Your task to perform on an android device: Open calendar and show me the fourth week of next month Image 0: 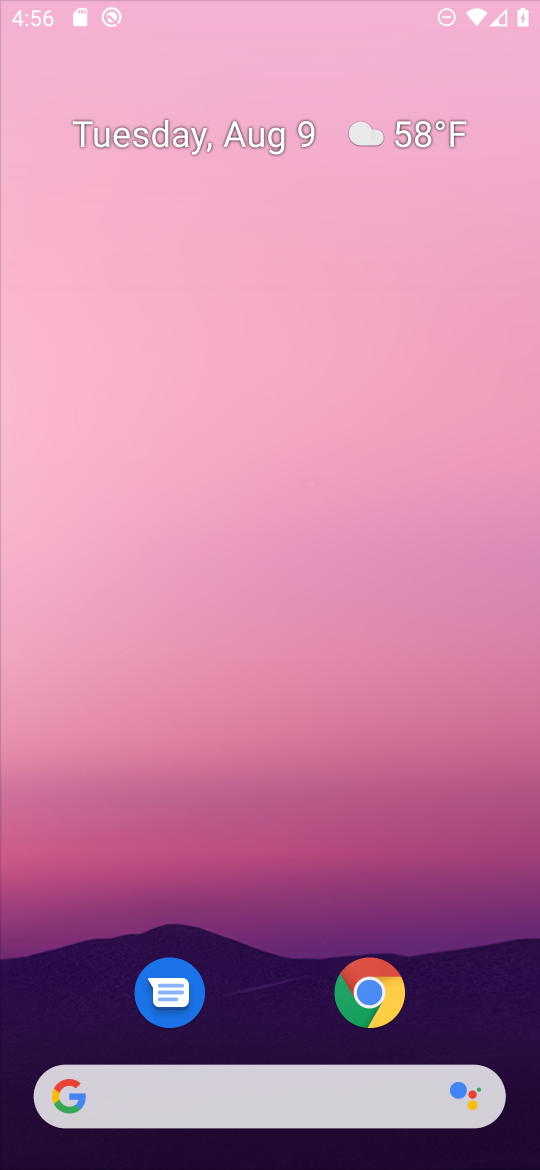
Step 0: press home button
Your task to perform on an android device: Open calendar and show me the fourth week of next month Image 1: 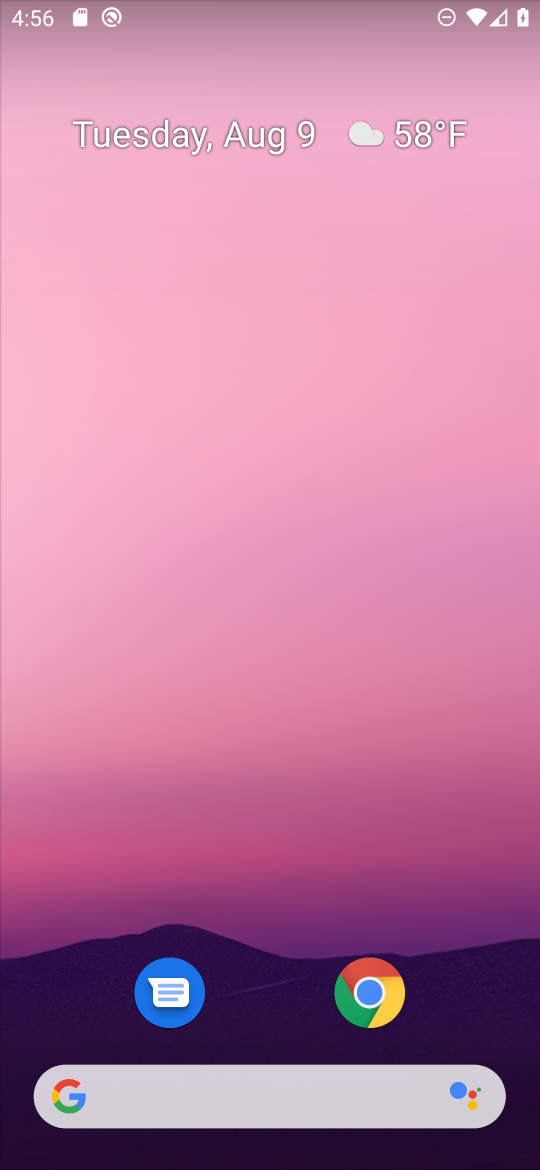
Step 1: drag from (310, 1084) to (300, 154)
Your task to perform on an android device: Open calendar and show me the fourth week of next month Image 2: 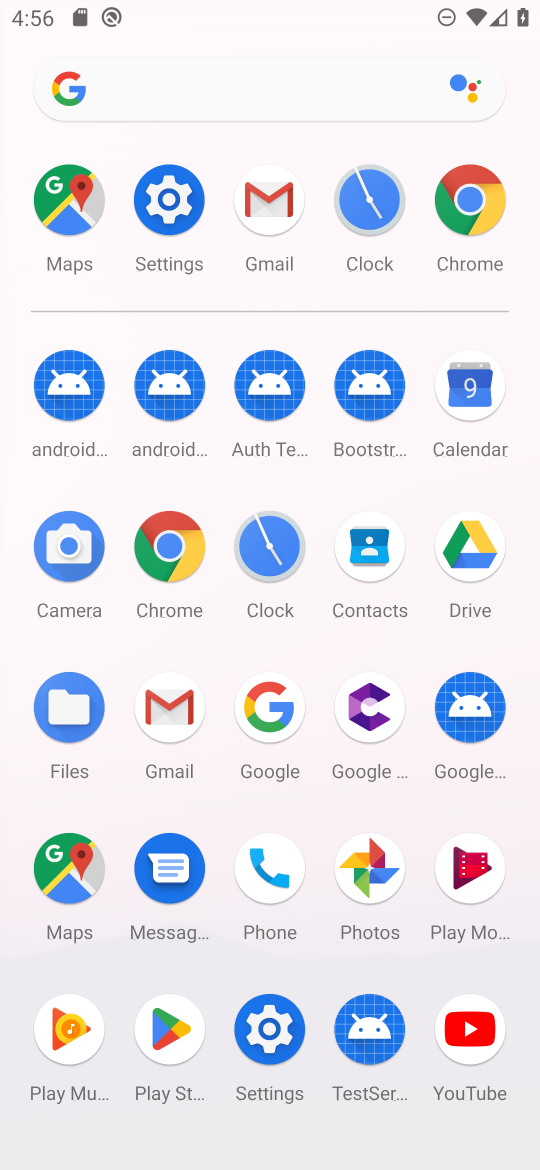
Step 2: click (180, 195)
Your task to perform on an android device: Open calendar and show me the fourth week of next month Image 3: 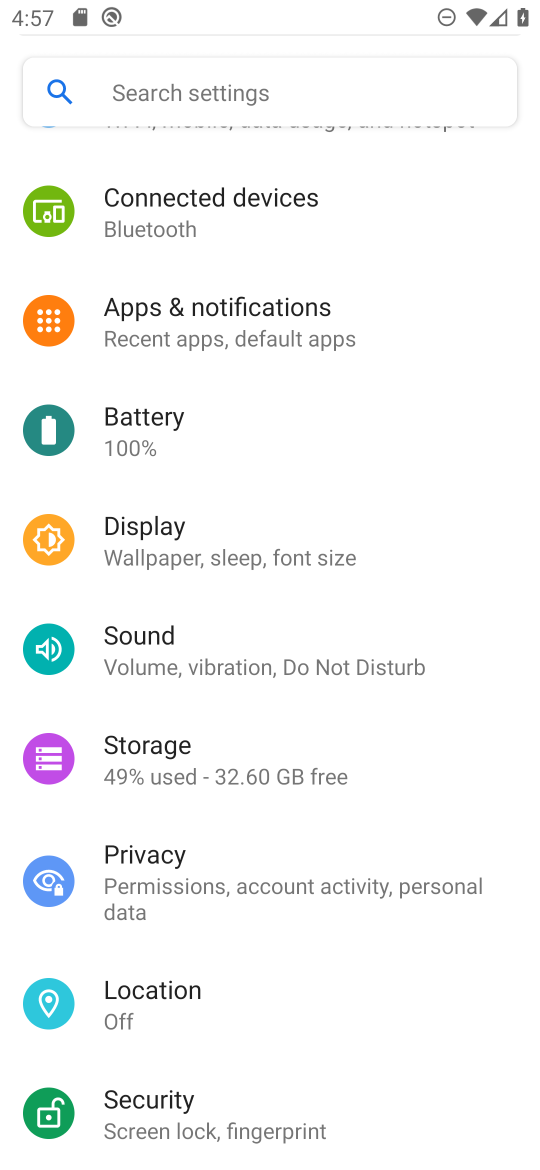
Step 3: click (211, 302)
Your task to perform on an android device: Open calendar and show me the fourth week of next month Image 4: 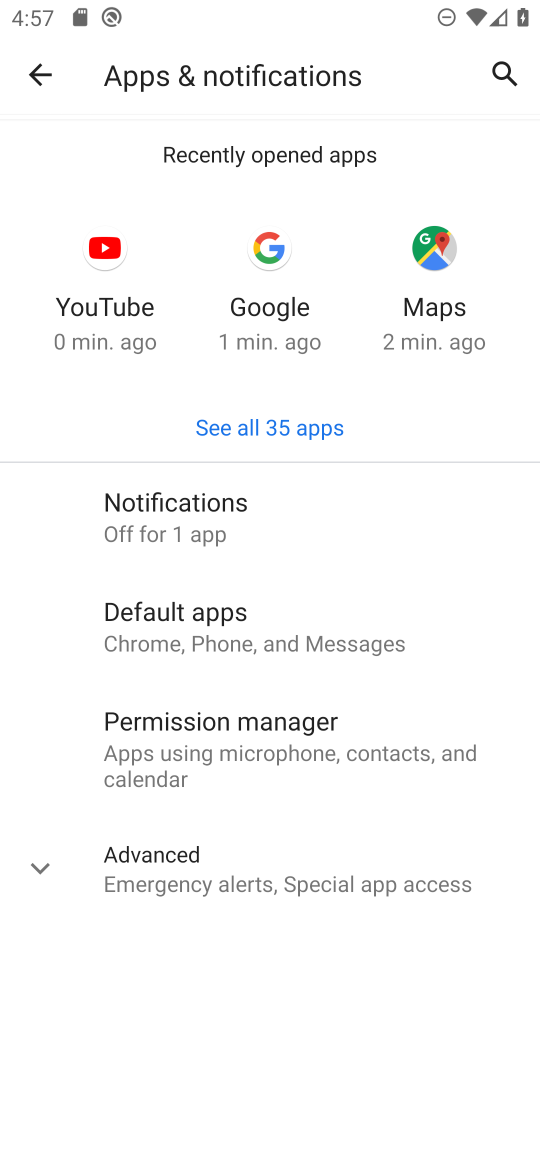
Step 4: press home button
Your task to perform on an android device: Open calendar and show me the fourth week of next month Image 5: 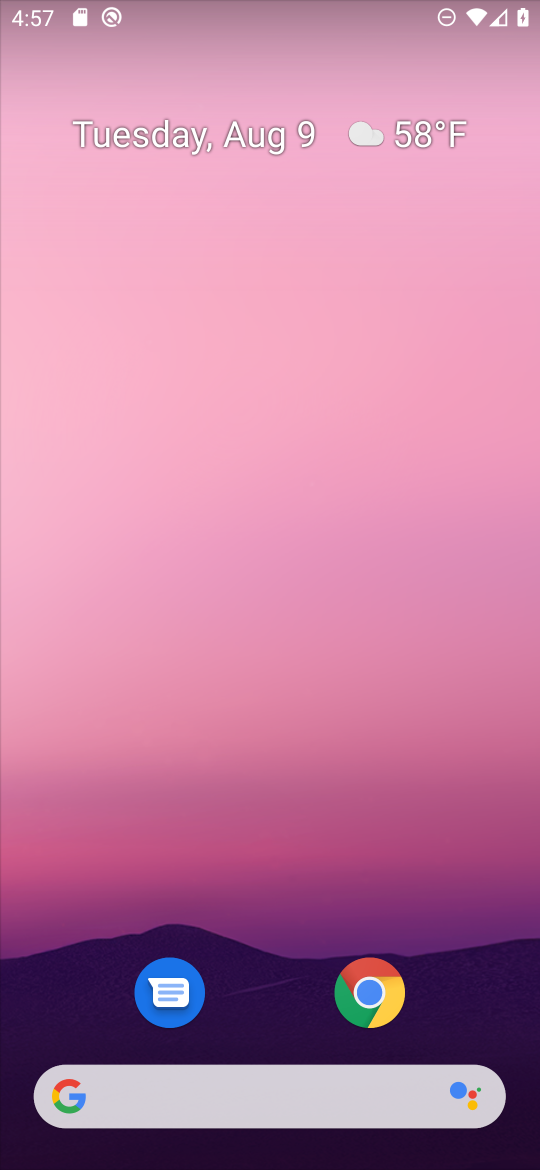
Step 5: drag from (241, 1060) to (191, 126)
Your task to perform on an android device: Open calendar and show me the fourth week of next month Image 6: 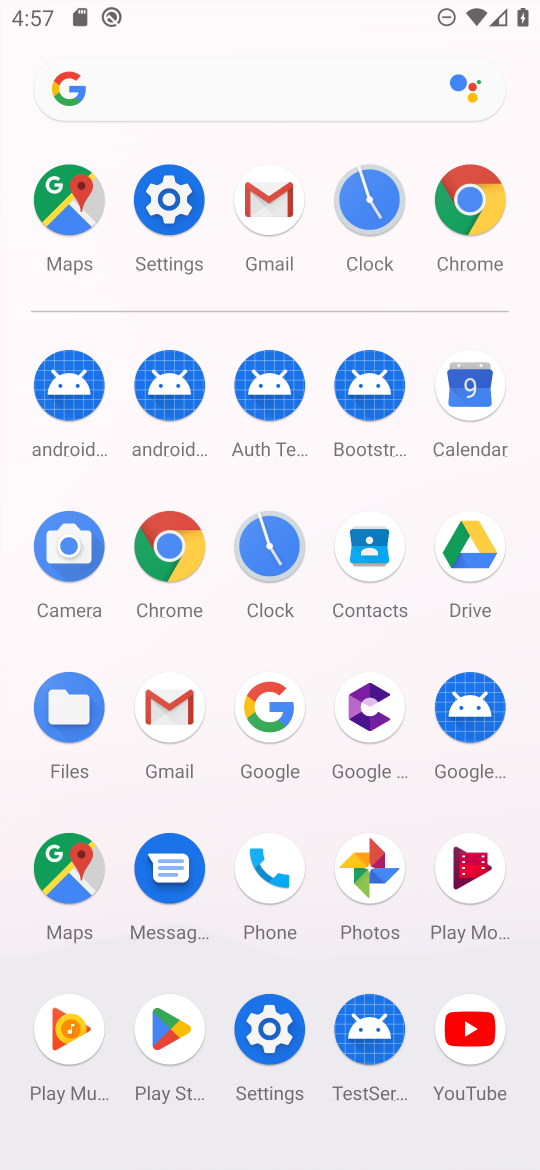
Step 6: click (457, 422)
Your task to perform on an android device: Open calendar and show me the fourth week of next month Image 7: 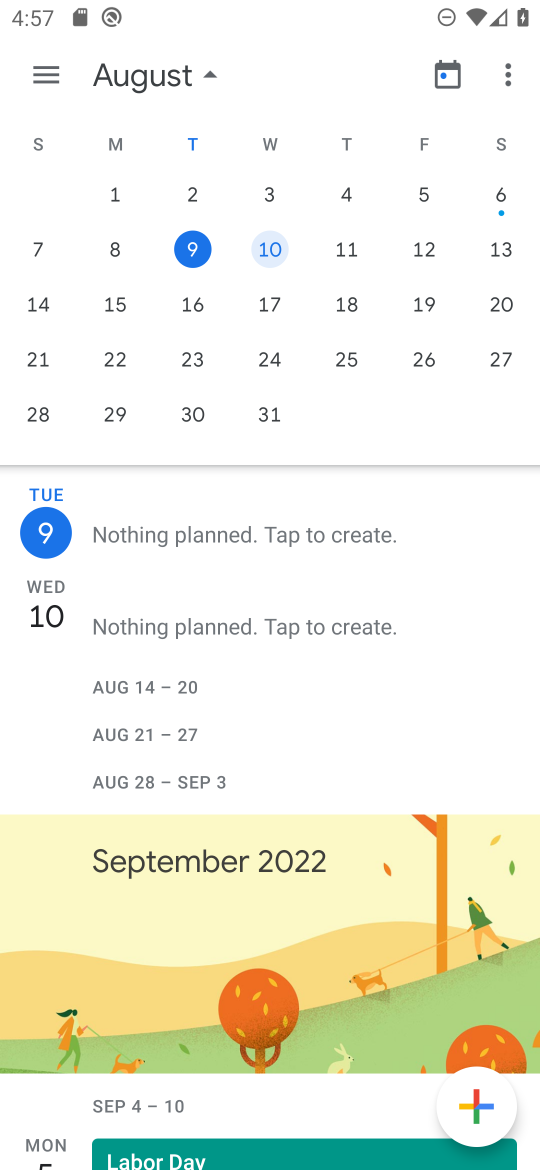
Step 7: click (43, 388)
Your task to perform on an android device: Open calendar and show me the fourth week of next month Image 8: 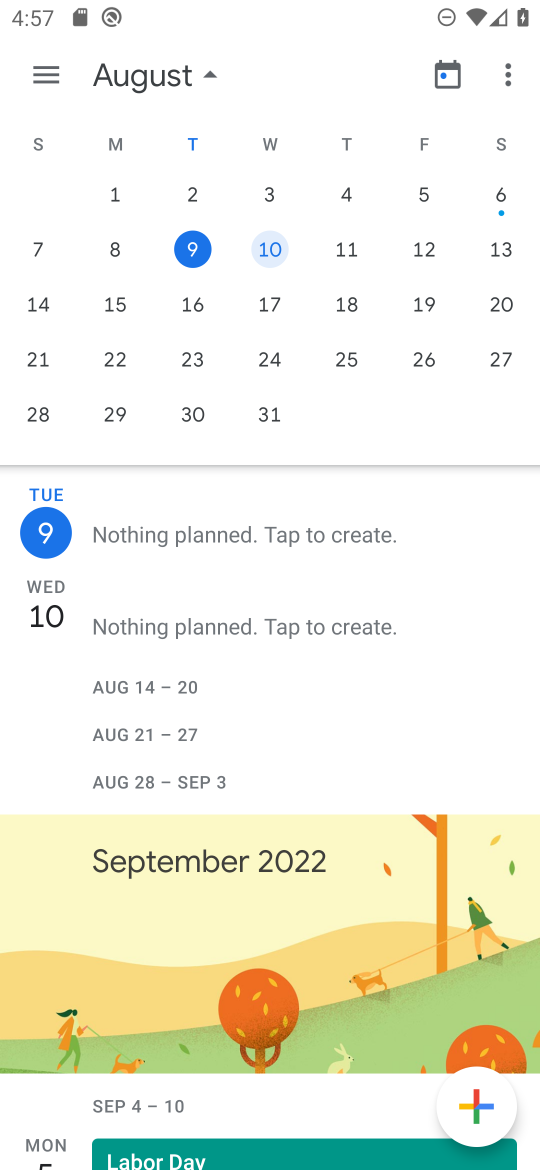
Step 8: drag from (469, 312) to (46, 425)
Your task to perform on an android device: Open calendar and show me the fourth week of next month Image 9: 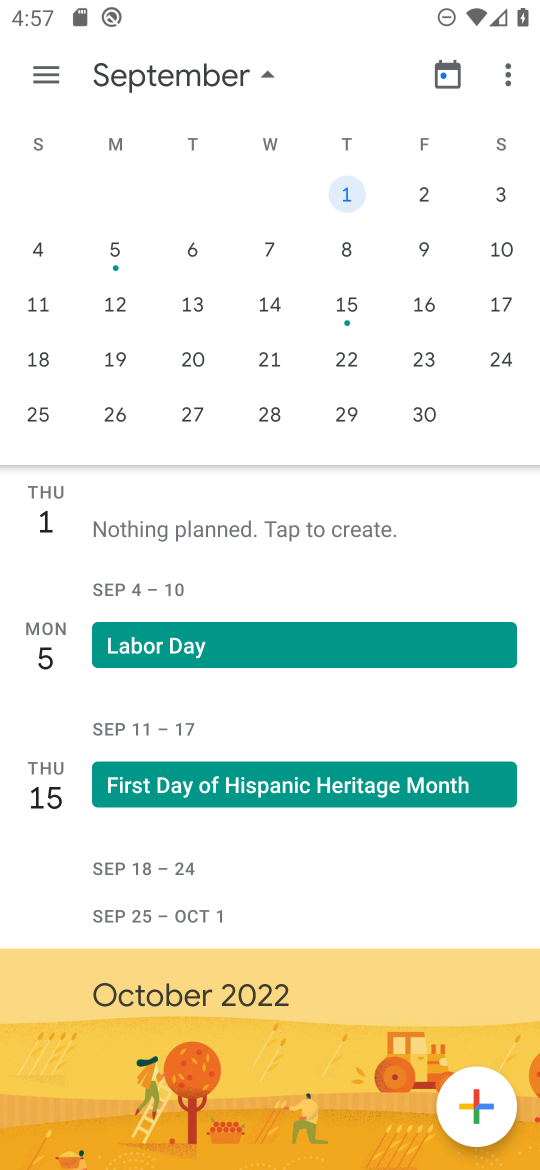
Step 9: drag from (385, 271) to (19, 255)
Your task to perform on an android device: Open calendar and show me the fourth week of next month Image 10: 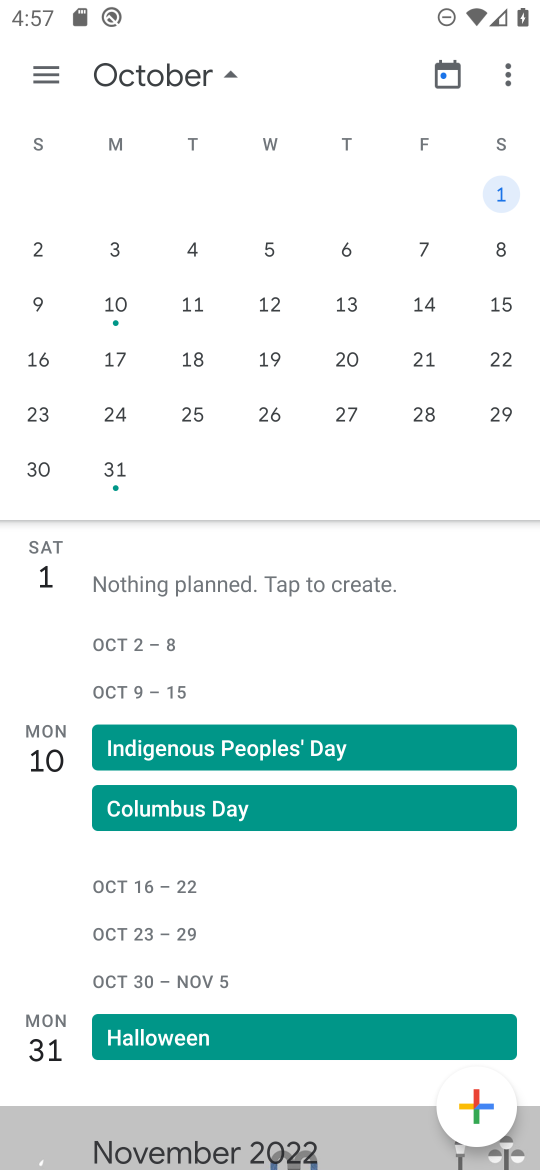
Step 10: drag from (133, 258) to (536, 383)
Your task to perform on an android device: Open calendar and show me the fourth week of next month Image 11: 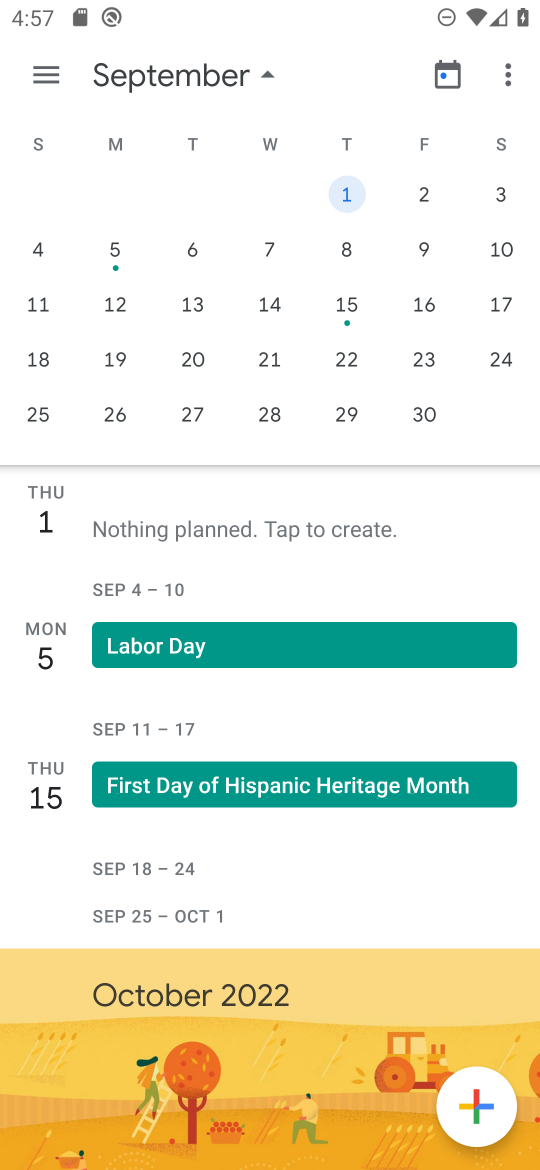
Step 11: click (281, 368)
Your task to perform on an android device: Open calendar and show me the fourth week of next month Image 12: 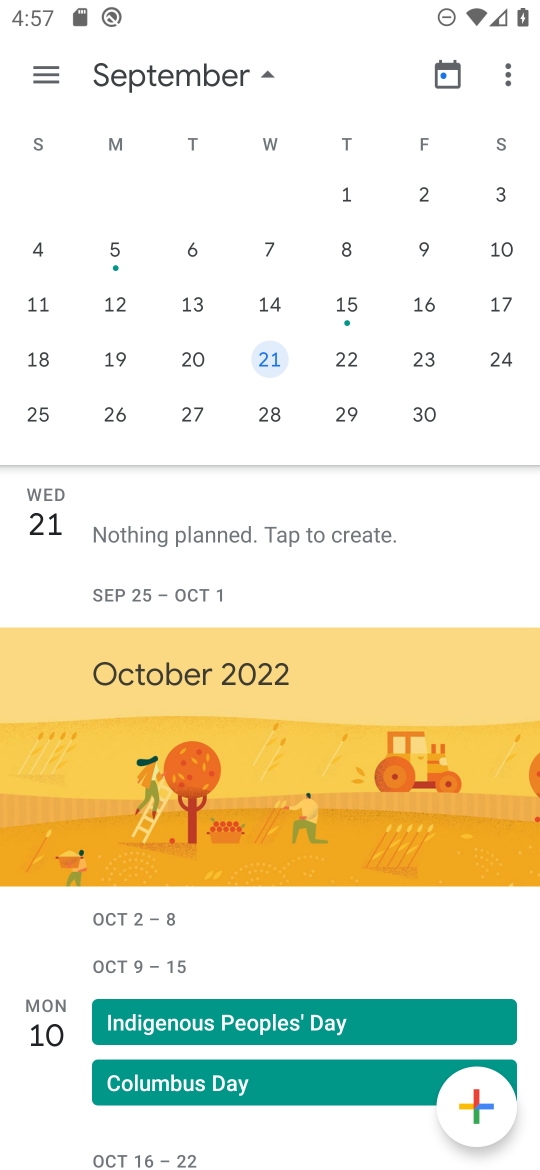
Step 12: task complete